Your task to perform on an android device: Open internet settings Image 0: 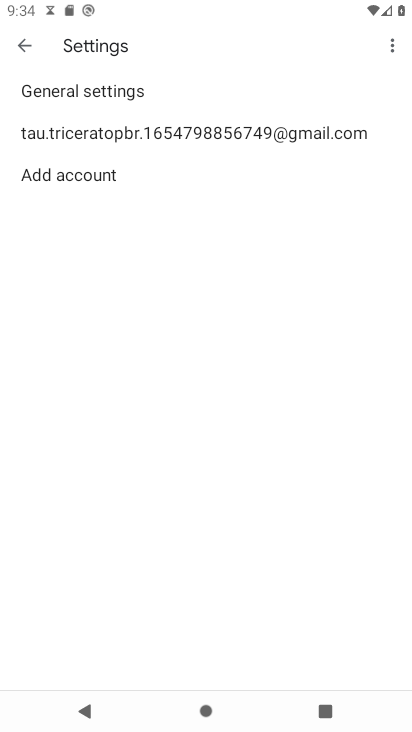
Step 0: press home button
Your task to perform on an android device: Open internet settings Image 1: 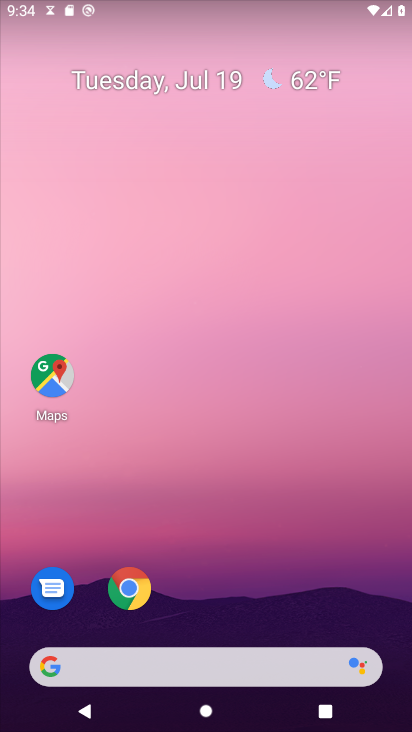
Step 1: drag from (193, 536) to (193, 12)
Your task to perform on an android device: Open internet settings Image 2: 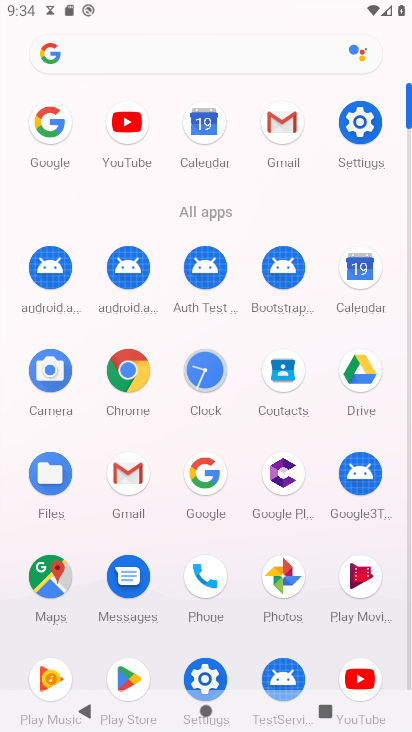
Step 2: click (359, 131)
Your task to perform on an android device: Open internet settings Image 3: 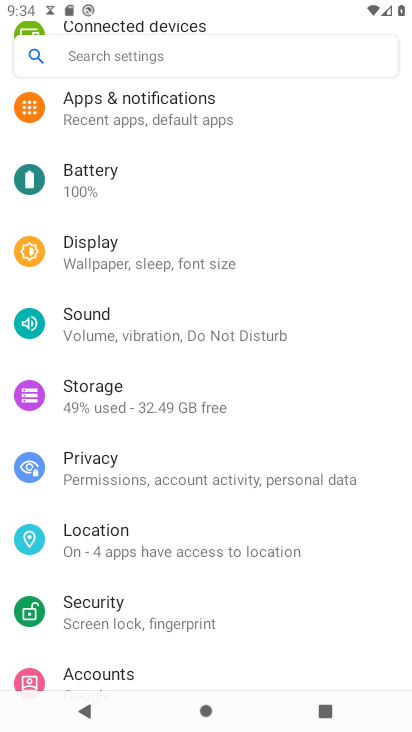
Step 3: drag from (206, 326) to (204, 565)
Your task to perform on an android device: Open internet settings Image 4: 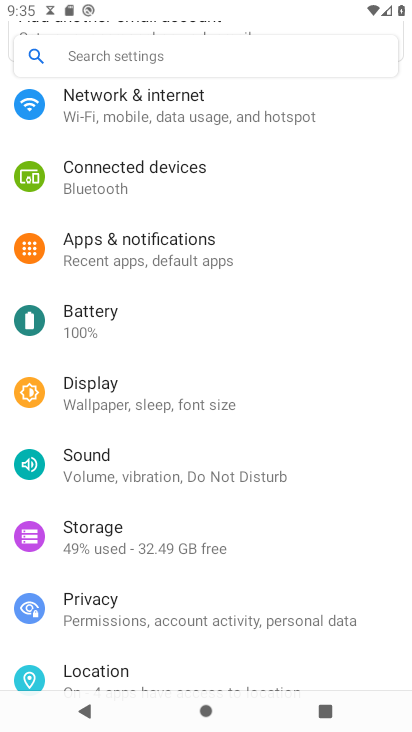
Step 4: click (161, 105)
Your task to perform on an android device: Open internet settings Image 5: 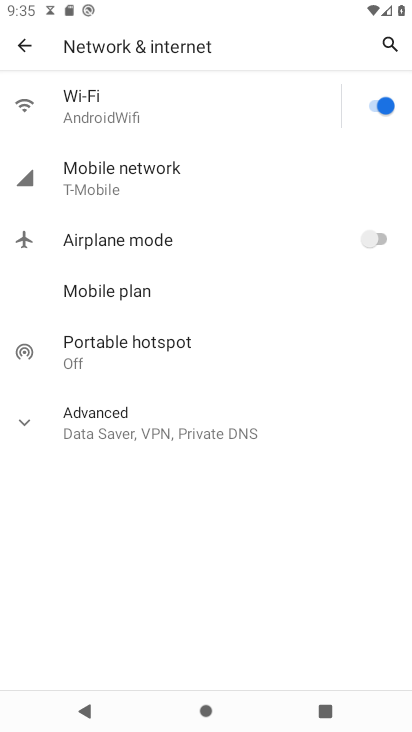
Step 5: task complete